Your task to perform on an android device: turn on javascript in the chrome app Image 0: 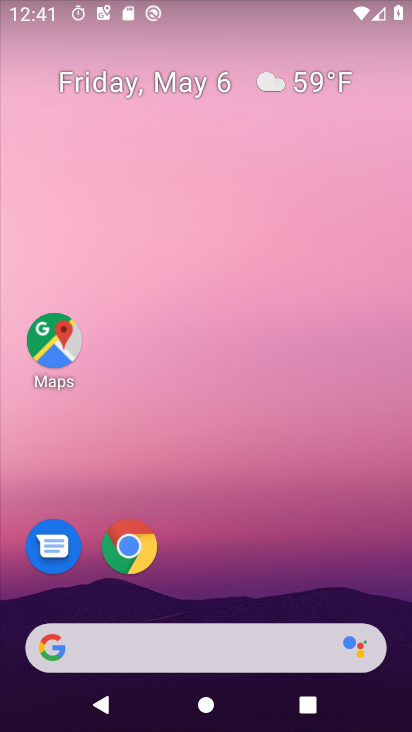
Step 0: click (132, 549)
Your task to perform on an android device: turn on javascript in the chrome app Image 1: 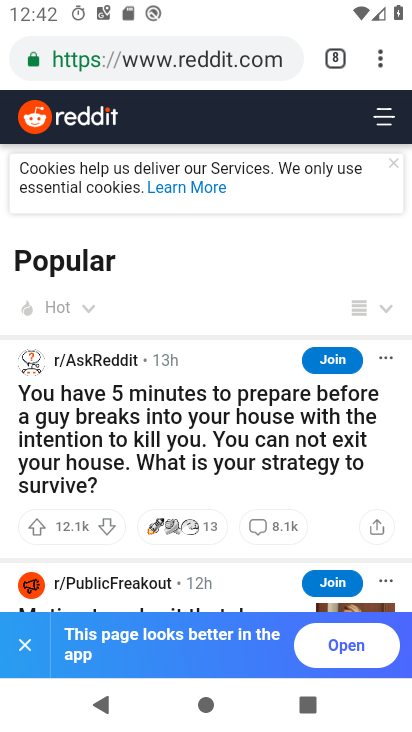
Step 1: click (385, 62)
Your task to perform on an android device: turn on javascript in the chrome app Image 2: 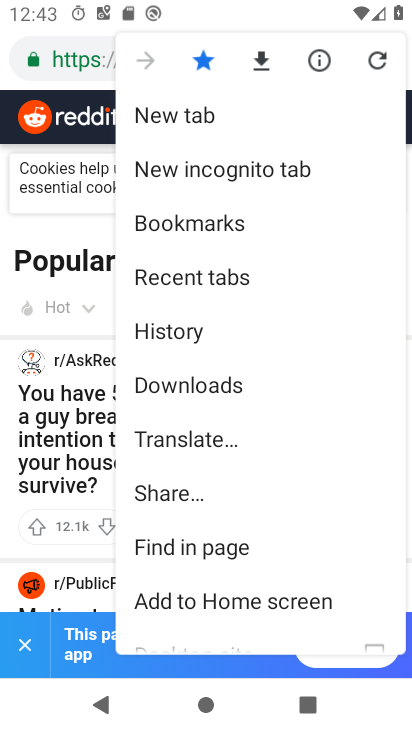
Step 2: drag from (262, 562) to (254, 331)
Your task to perform on an android device: turn on javascript in the chrome app Image 3: 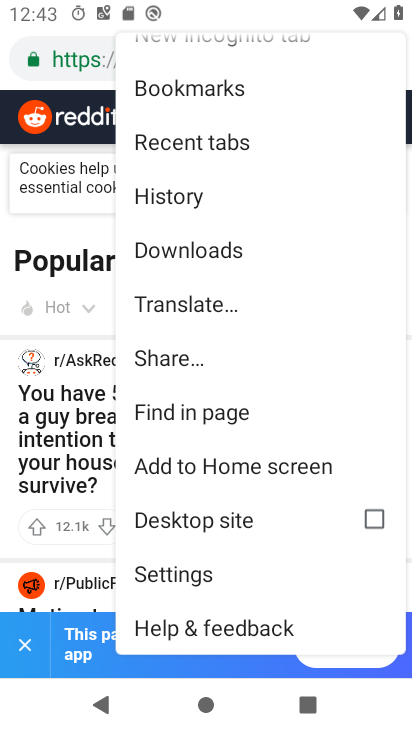
Step 3: click (177, 566)
Your task to perform on an android device: turn on javascript in the chrome app Image 4: 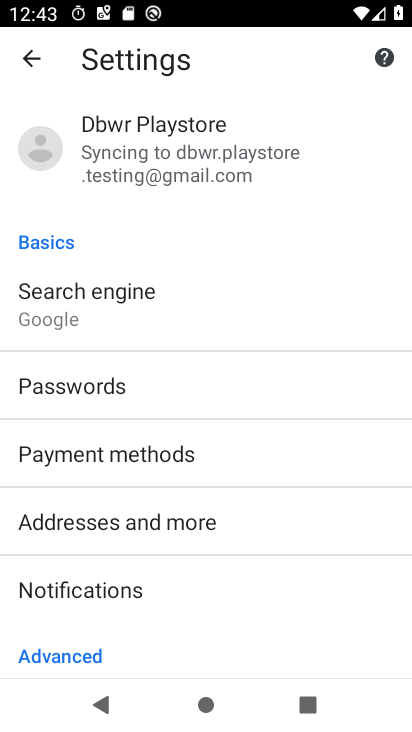
Step 4: drag from (275, 607) to (277, 331)
Your task to perform on an android device: turn on javascript in the chrome app Image 5: 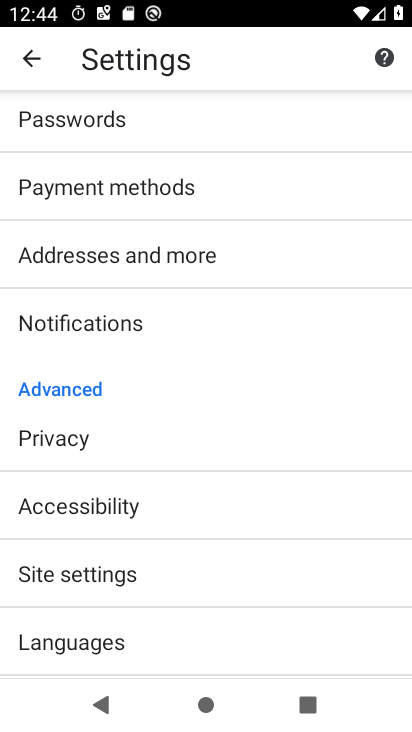
Step 5: click (162, 570)
Your task to perform on an android device: turn on javascript in the chrome app Image 6: 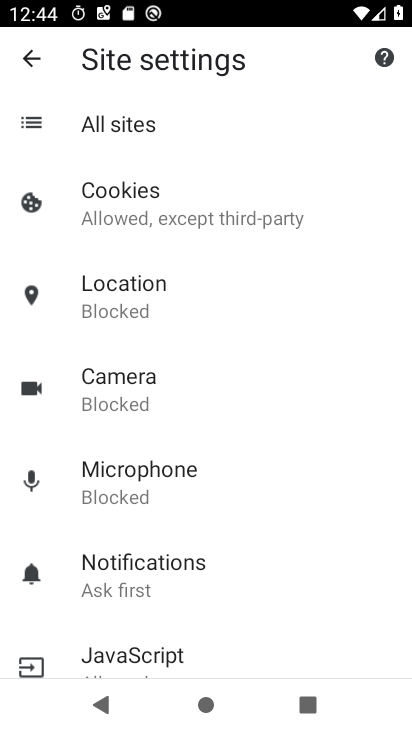
Step 6: click (187, 655)
Your task to perform on an android device: turn on javascript in the chrome app Image 7: 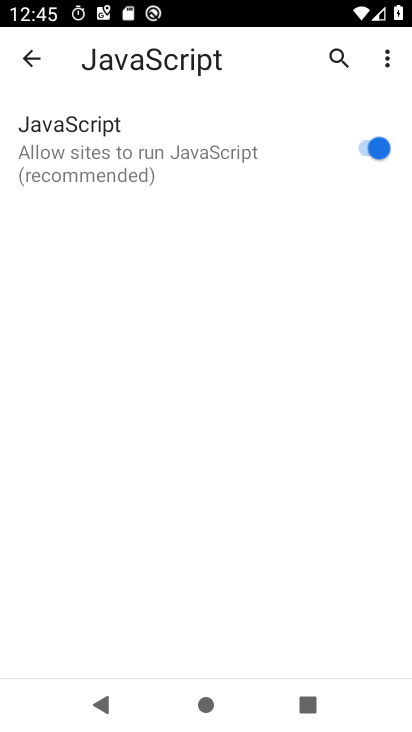
Step 7: task complete